Your task to perform on an android device: Clear all items from cart on bestbuy.com. Search for "dell xps" on bestbuy.com, select the first entry, add it to the cart, then select checkout. Image 0: 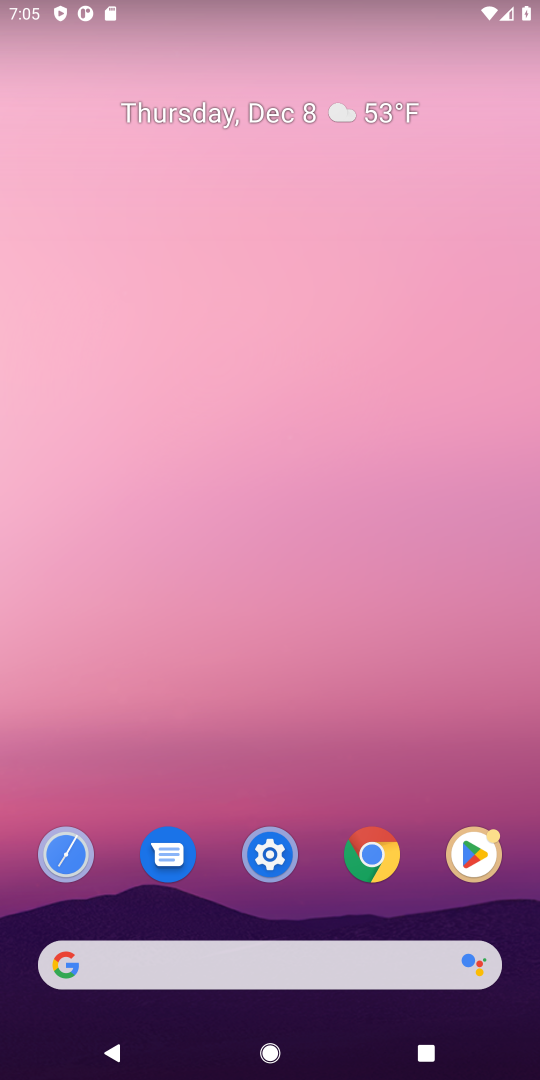
Step 0: press home button
Your task to perform on an android device: Clear all items from cart on bestbuy.com. Search for "dell xps" on bestbuy.com, select the first entry, add it to the cart, then select checkout. Image 1: 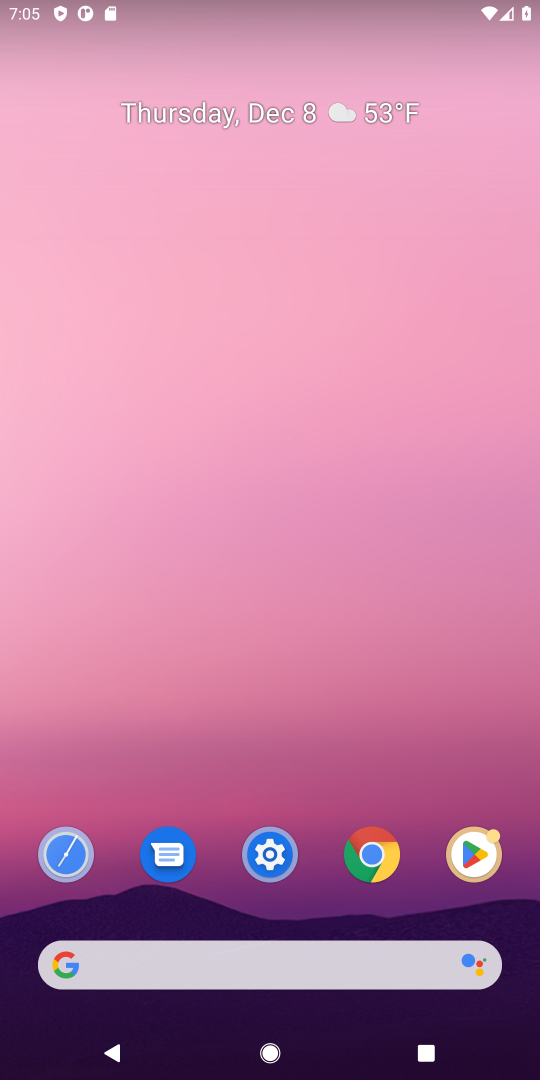
Step 1: click (93, 959)
Your task to perform on an android device: Clear all items from cart on bestbuy.com. Search for "dell xps" on bestbuy.com, select the first entry, add it to the cart, then select checkout. Image 2: 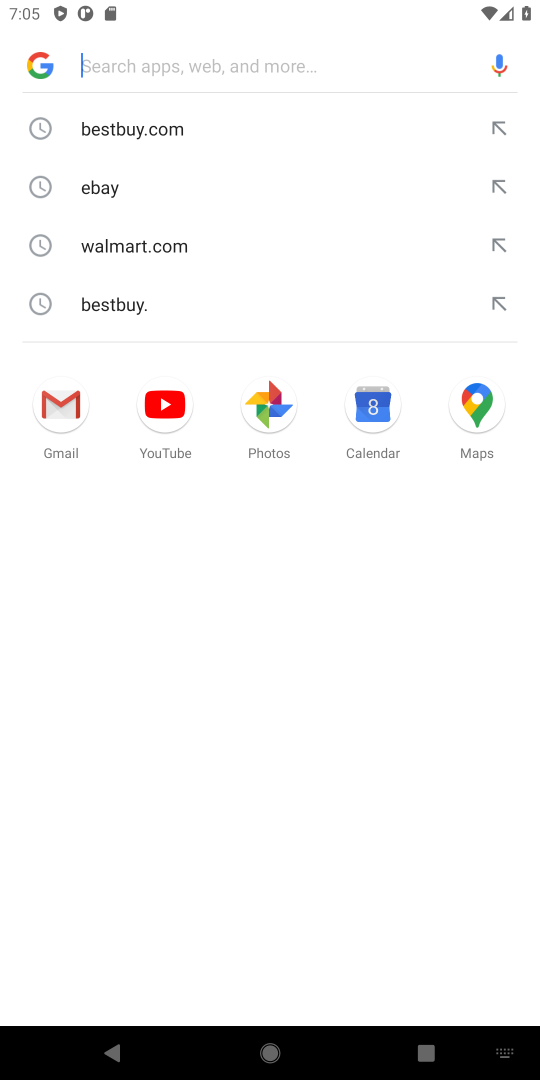
Step 2: type "bestbuy.com"
Your task to perform on an android device: Clear all items from cart on bestbuy.com. Search for "dell xps" on bestbuy.com, select the first entry, add it to the cart, then select checkout. Image 3: 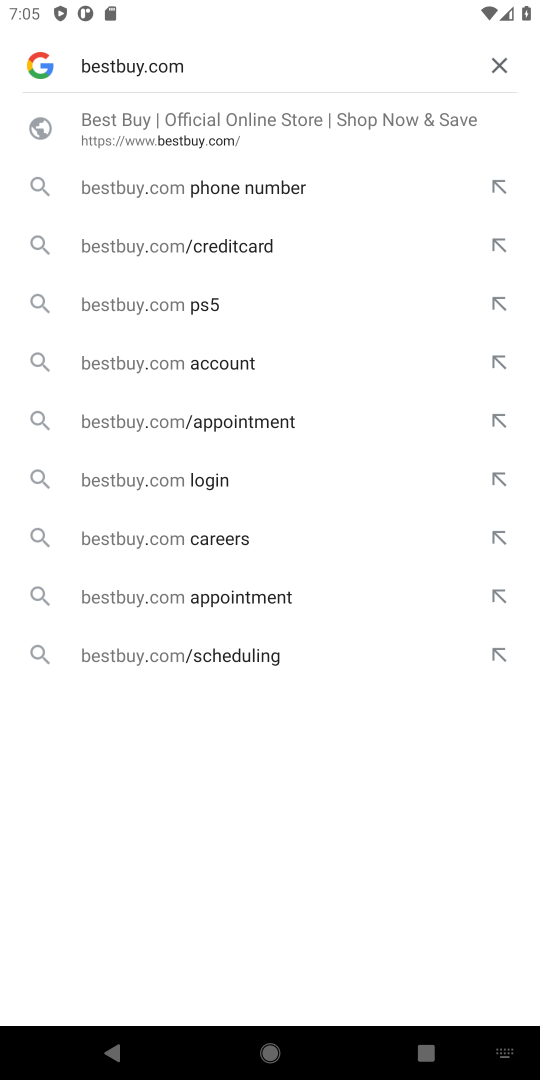
Step 3: press enter
Your task to perform on an android device: Clear all items from cart on bestbuy.com. Search for "dell xps" on bestbuy.com, select the first entry, add it to the cart, then select checkout. Image 4: 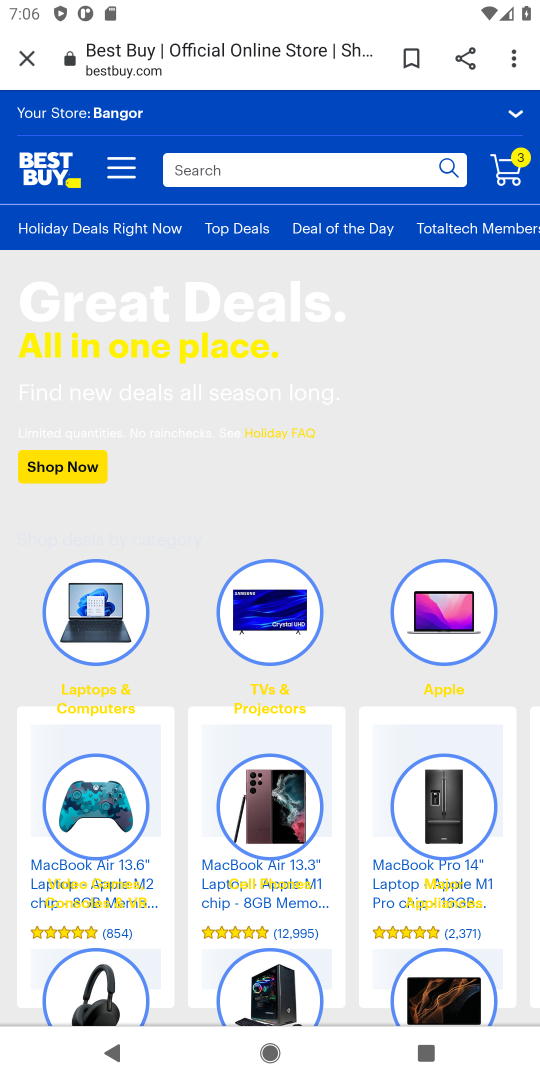
Step 4: click (512, 166)
Your task to perform on an android device: Clear all items from cart on bestbuy.com. Search for "dell xps" on bestbuy.com, select the first entry, add it to the cart, then select checkout. Image 5: 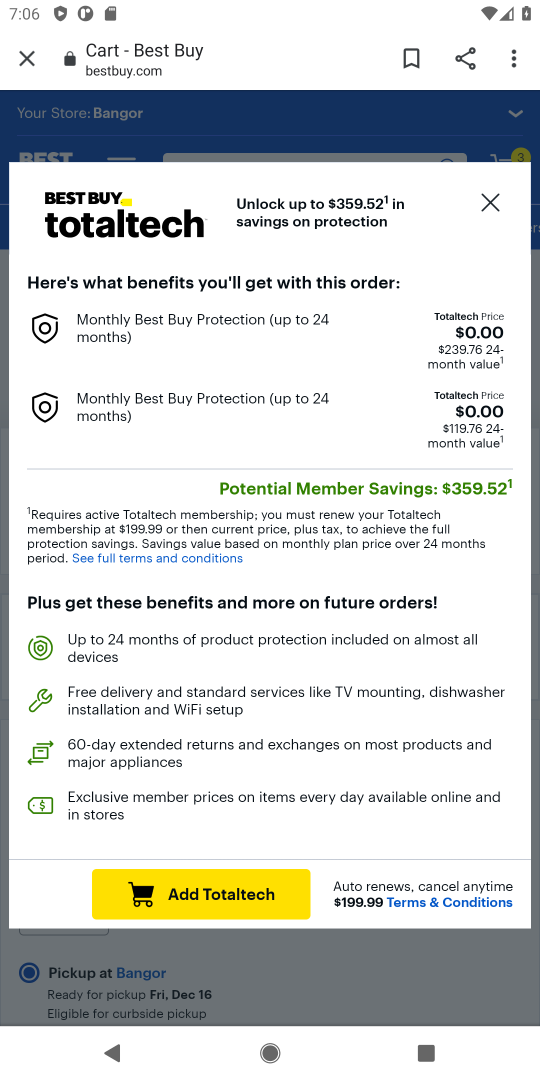
Step 5: click (487, 199)
Your task to perform on an android device: Clear all items from cart on bestbuy.com. Search for "dell xps" on bestbuy.com, select the first entry, add it to the cart, then select checkout. Image 6: 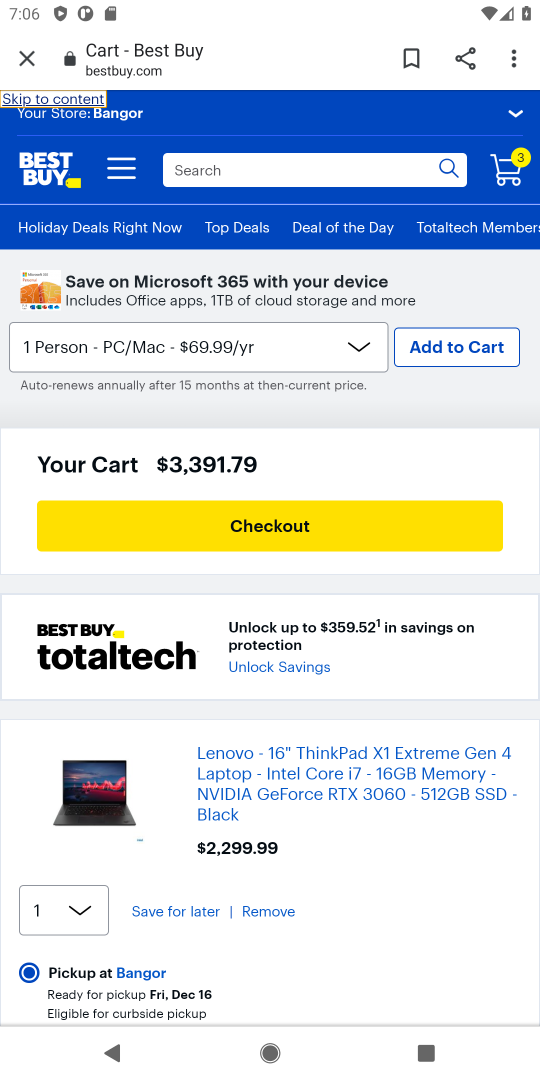
Step 6: drag from (293, 834) to (297, 377)
Your task to perform on an android device: Clear all items from cart on bestbuy.com. Search for "dell xps" on bestbuy.com, select the first entry, add it to the cart, then select checkout. Image 7: 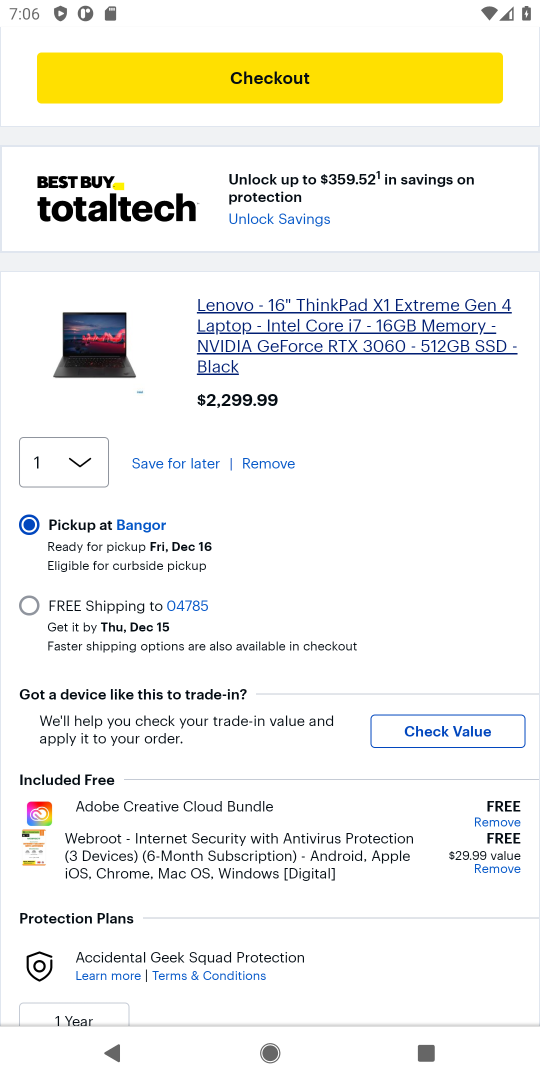
Step 7: drag from (235, 849) to (243, 405)
Your task to perform on an android device: Clear all items from cart on bestbuy.com. Search for "dell xps" on bestbuy.com, select the first entry, add it to the cart, then select checkout. Image 8: 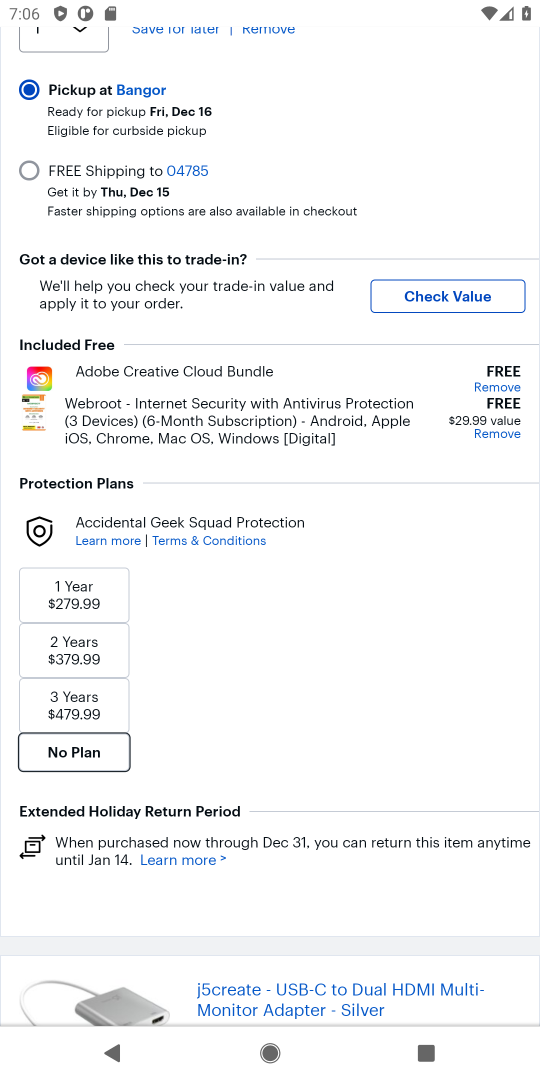
Step 8: drag from (315, 168) to (321, 701)
Your task to perform on an android device: Clear all items from cart on bestbuy.com. Search for "dell xps" on bestbuy.com, select the first entry, add it to the cart, then select checkout. Image 9: 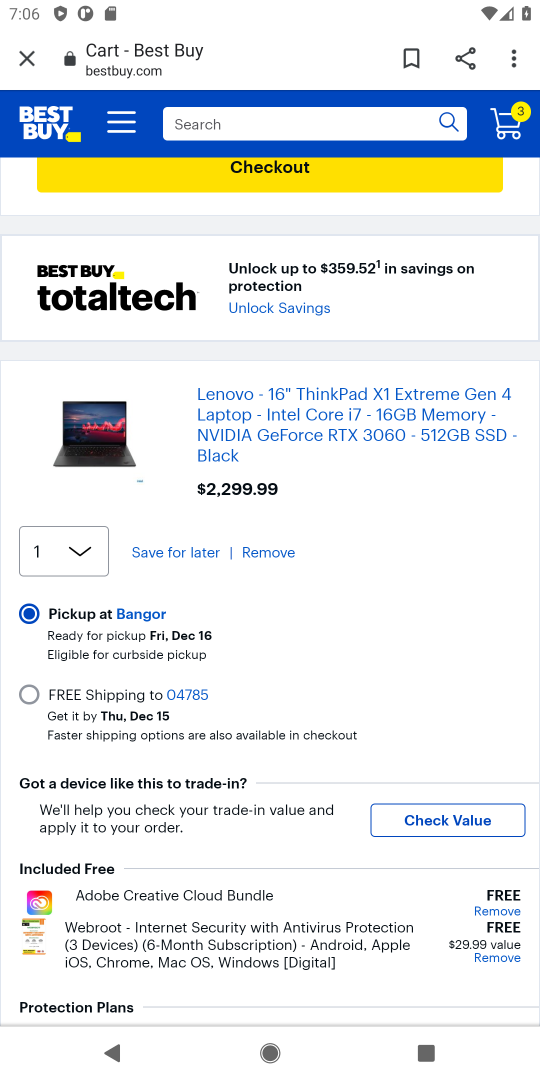
Step 9: click (273, 551)
Your task to perform on an android device: Clear all items from cart on bestbuy.com. Search for "dell xps" on bestbuy.com, select the first entry, add it to the cart, then select checkout. Image 10: 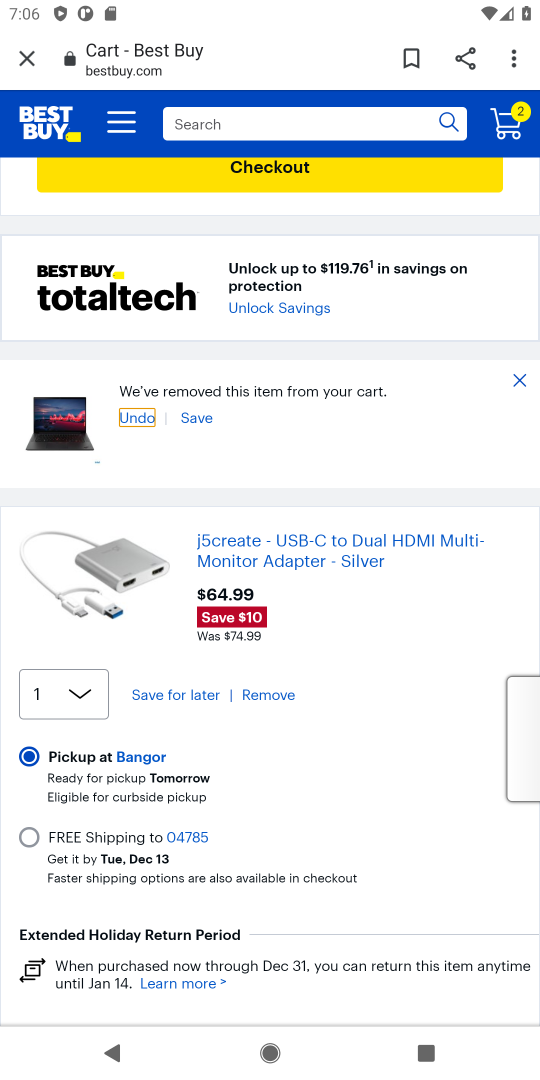
Step 10: click (254, 688)
Your task to perform on an android device: Clear all items from cart on bestbuy.com. Search for "dell xps" on bestbuy.com, select the first entry, add it to the cart, then select checkout. Image 11: 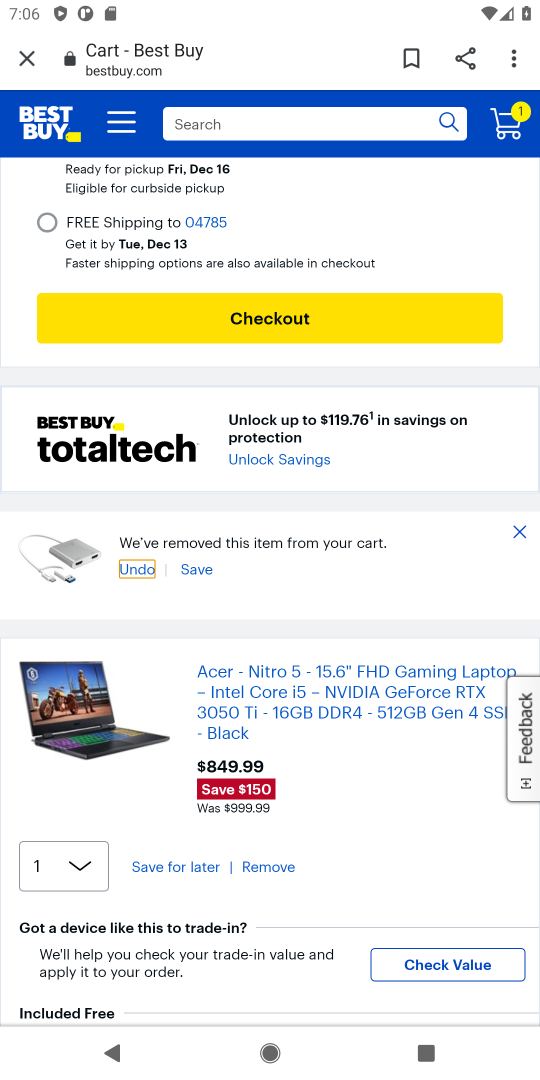
Step 11: click (250, 861)
Your task to perform on an android device: Clear all items from cart on bestbuy.com. Search for "dell xps" on bestbuy.com, select the first entry, add it to the cart, then select checkout. Image 12: 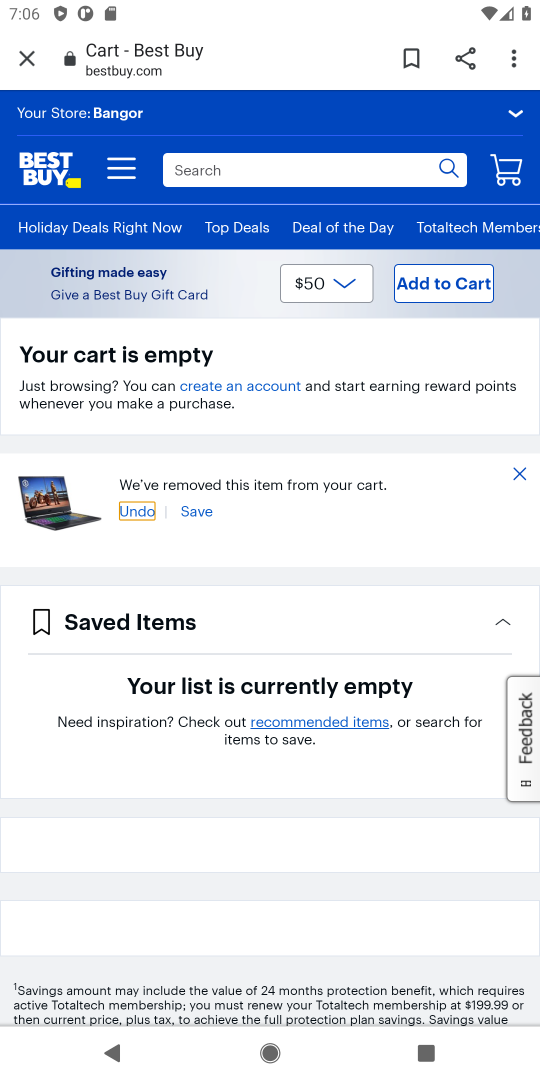
Step 12: click (292, 160)
Your task to perform on an android device: Clear all items from cart on bestbuy.com. Search for "dell xps" on bestbuy.com, select the first entry, add it to the cart, then select checkout. Image 13: 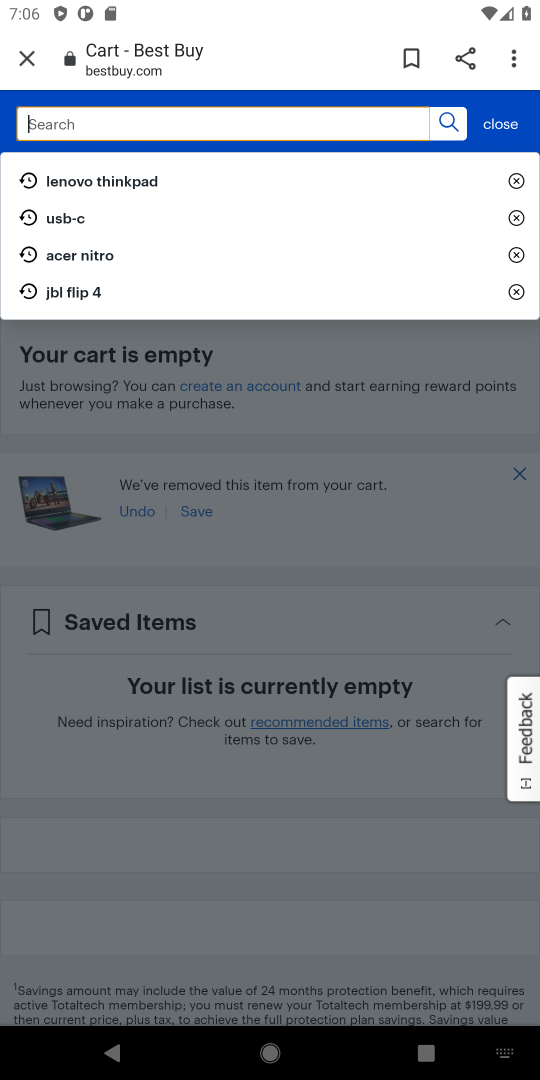
Step 13: type "dell xps"
Your task to perform on an android device: Clear all items from cart on bestbuy.com. Search for "dell xps" on bestbuy.com, select the first entry, add it to the cart, then select checkout. Image 14: 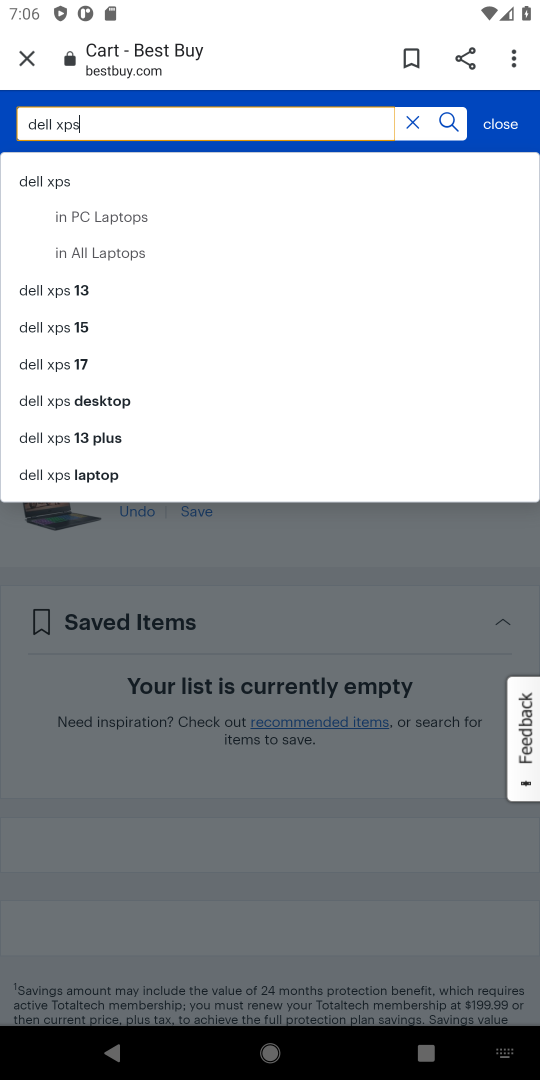
Step 14: press enter
Your task to perform on an android device: Clear all items from cart on bestbuy.com. Search for "dell xps" on bestbuy.com, select the first entry, add it to the cart, then select checkout. Image 15: 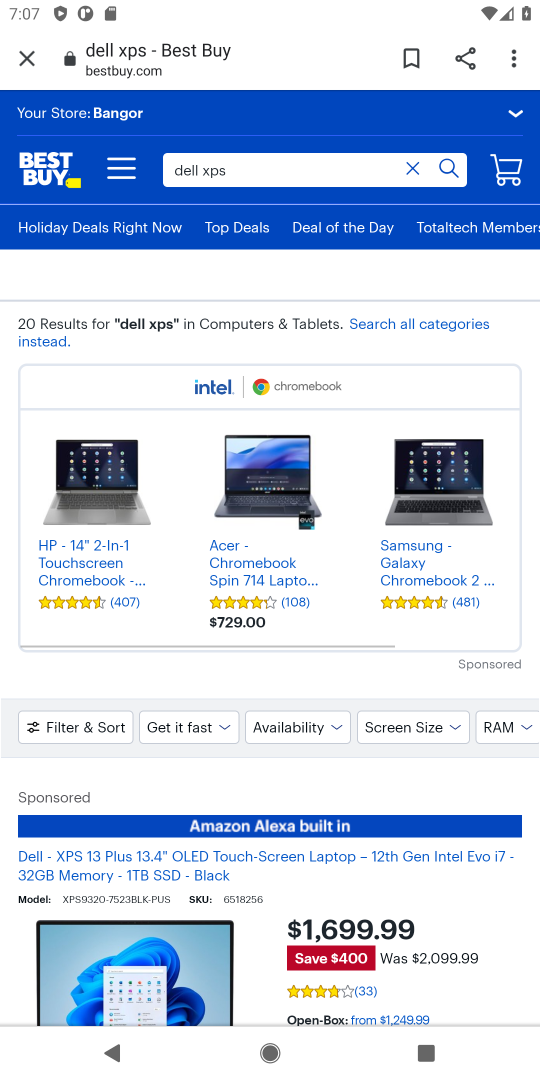
Step 15: drag from (428, 932) to (428, 495)
Your task to perform on an android device: Clear all items from cart on bestbuy.com. Search for "dell xps" on bestbuy.com, select the first entry, add it to the cart, then select checkout. Image 16: 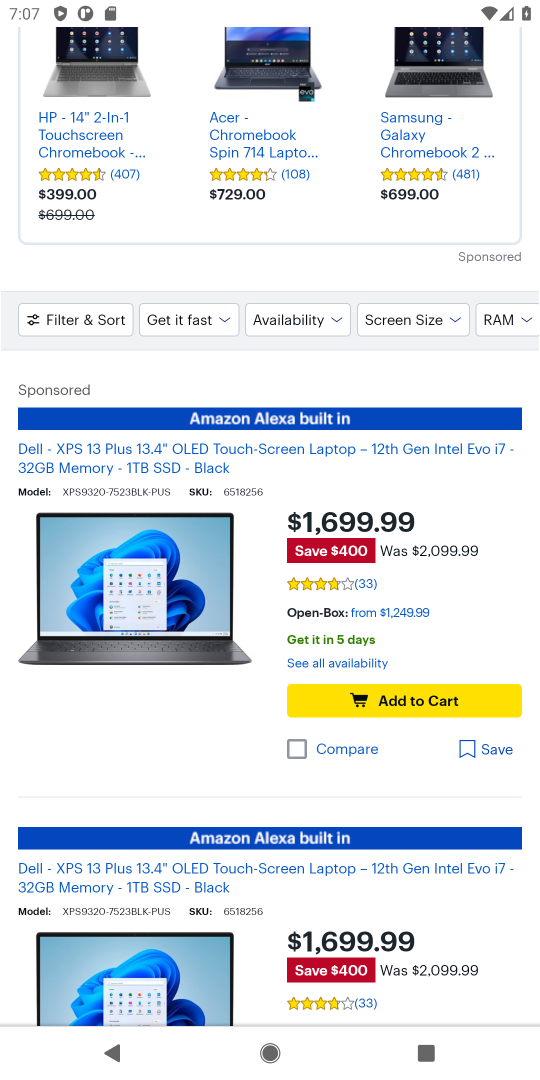
Step 16: click (430, 704)
Your task to perform on an android device: Clear all items from cart on bestbuy.com. Search for "dell xps" on bestbuy.com, select the first entry, add it to the cart, then select checkout. Image 17: 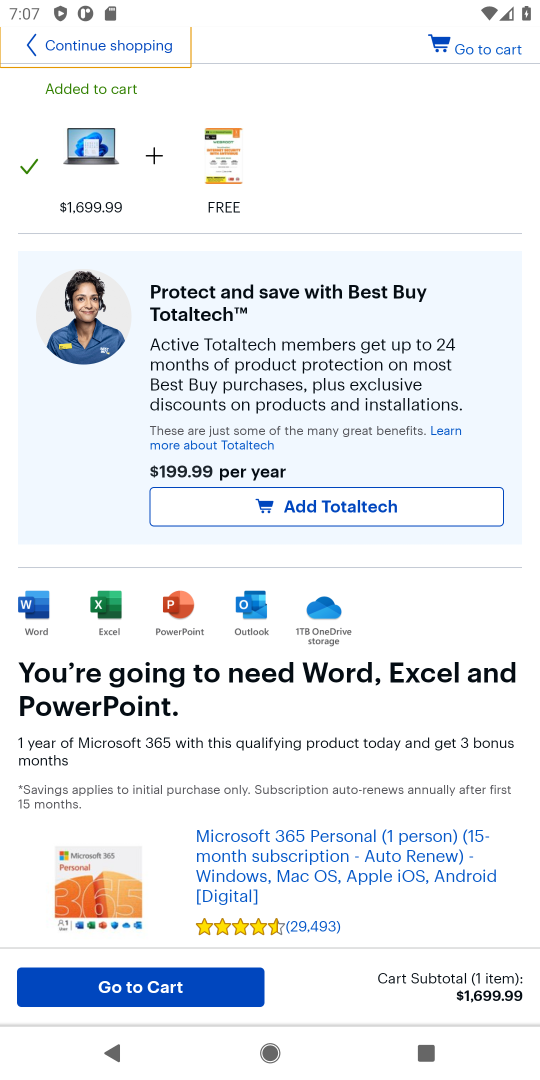
Step 17: task complete